Your task to perform on an android device: Go to calendar. Show me events next week Image 0: 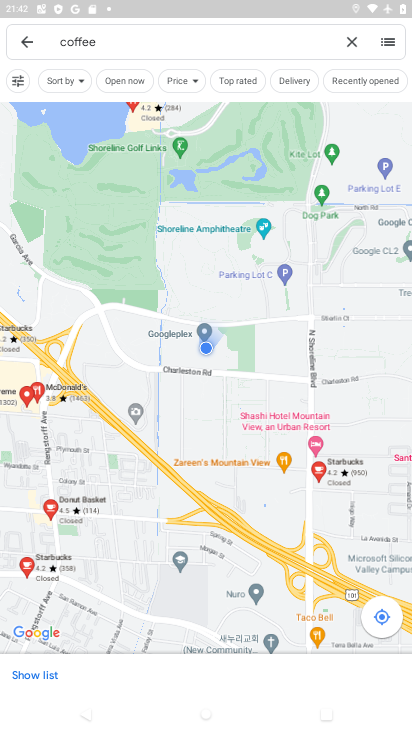
Step 0: press home button
Your task to perform on an android device: Go to calendar. Show me events next week Image 1: 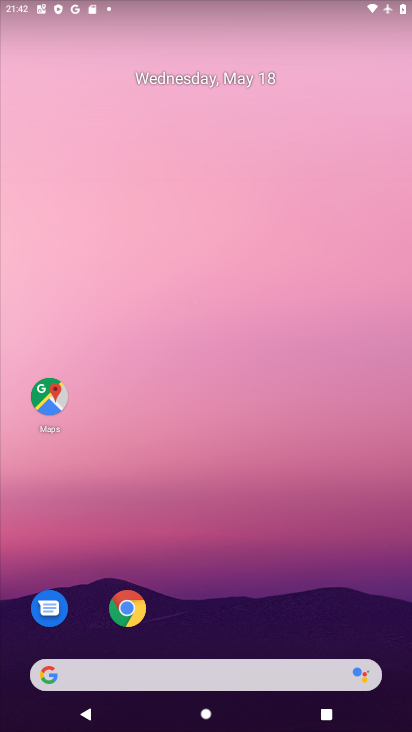
Step 1: drag from (215, 593) to (170, 6)
Your task to perform on an android device: Go to calendar. Show me events next week Image 2: 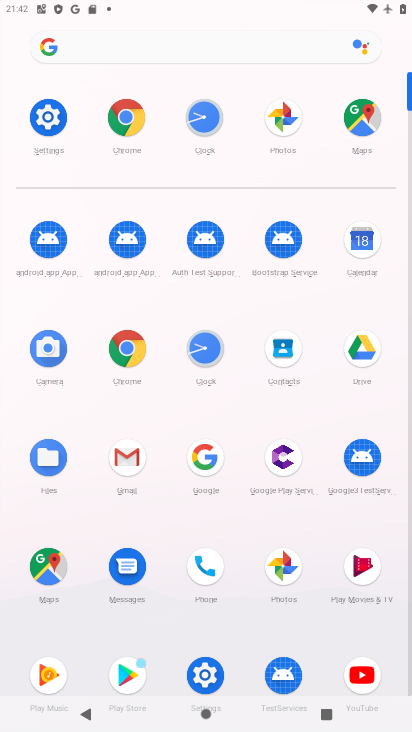
Step 2: click (44, 133)
Your task to perform on an android device: Go to calendar. Show me events next week Image 3: 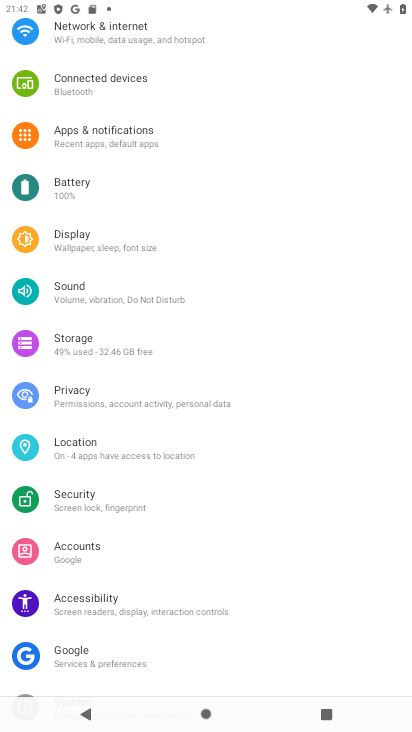
Step 3: press home button
Your task to perform on an android device: Go to calendar. Show me events next week Image 4: 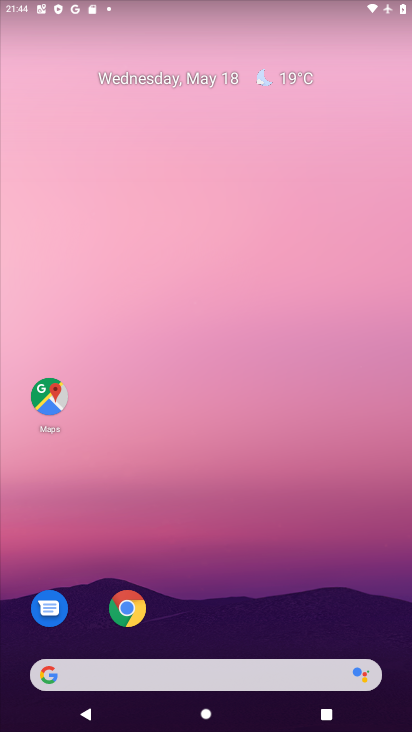
Step 4: drag from (345, 591) to (269, 52)
Your task to perform on an android device: Go to calendar. Show me events next week Image 5: 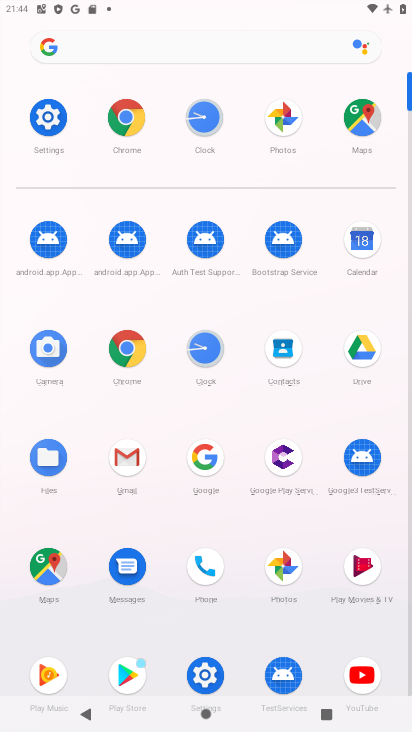
Step 5: click (57, 143)
Your task to perform on an android device: Go to calendar. Show me events next week Image 6: 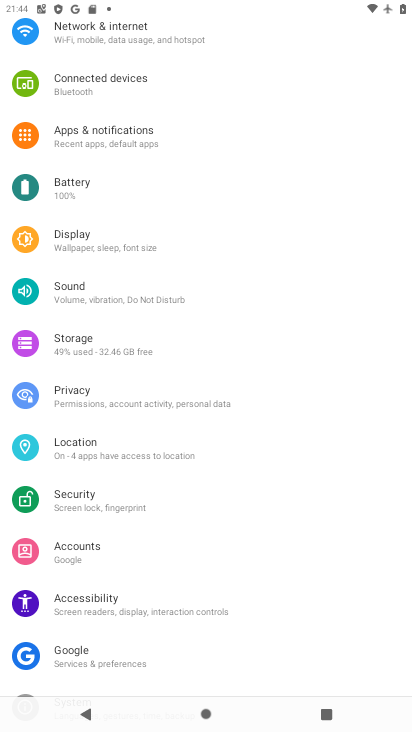
Step 6: press home button
Your task to perform on an android device: Go to calendar. Show me events next week Image 7: 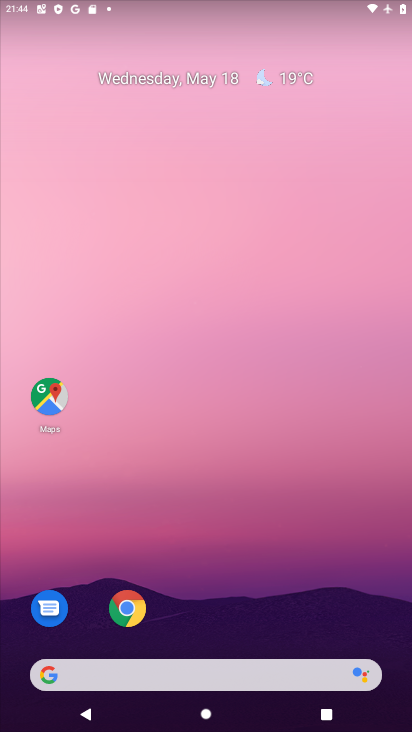
Step 7: drag from (245, 594) to (261, 107)
Your task to perform on an android device: Go to calendar. Show me events next week Image 8: 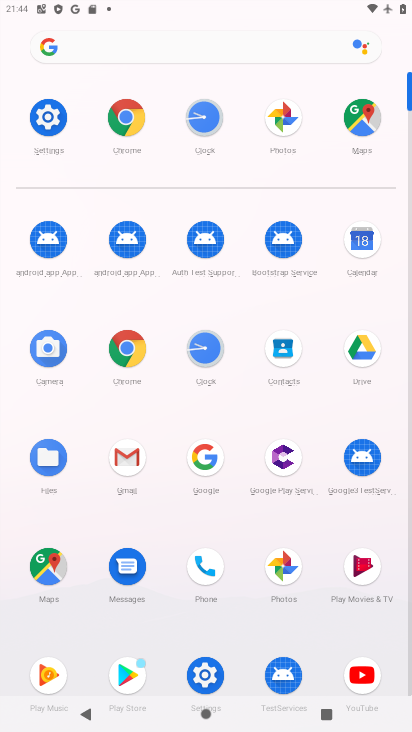
Step 8: click (354, 244)
Your task to perform on an android device: Go to calendar. Show me events next week Image 9: 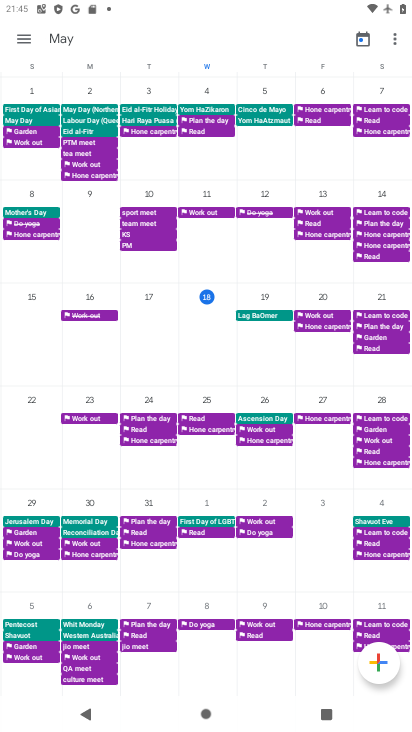
Step 9: task complete